Your task to perform on an android device: Go to CNN.com Image 0: 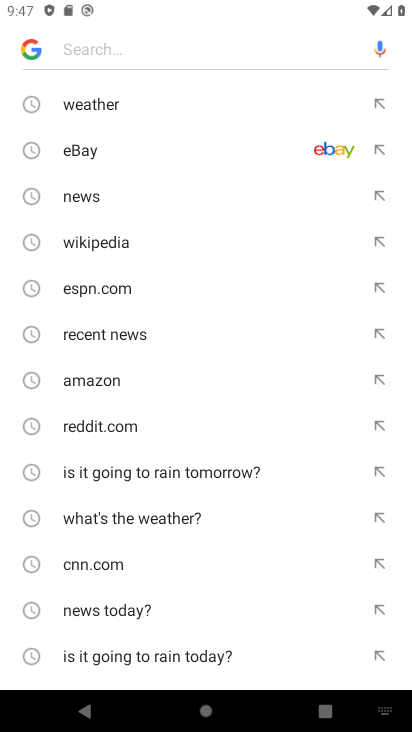
Step 0: press home button
Your task to perform on an android device: Go to CNN.com Image 1: 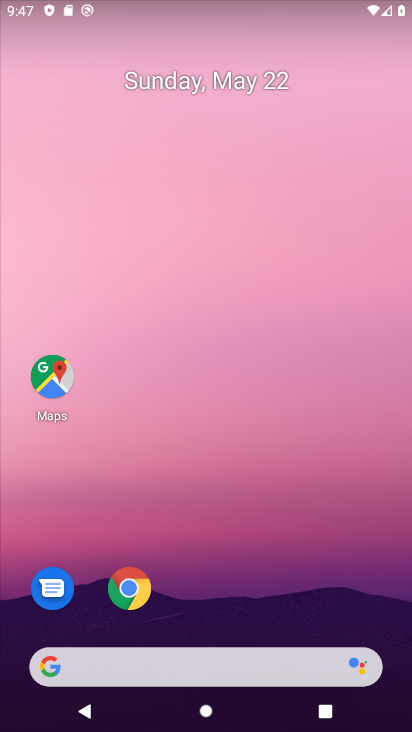
Step 1: drag from (214, 623) to (157, 120)
Your task to perform on an android device: Go to CNN.com Image 2: 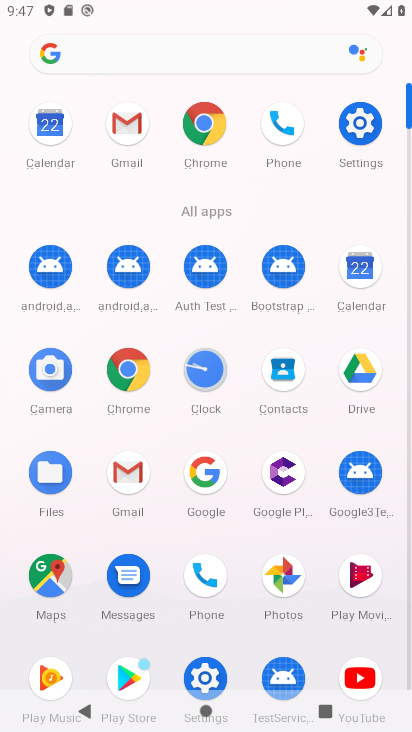
Step 2: click (203, 126)
Your task to perform on an android device: Go to CNN.com Image 3: 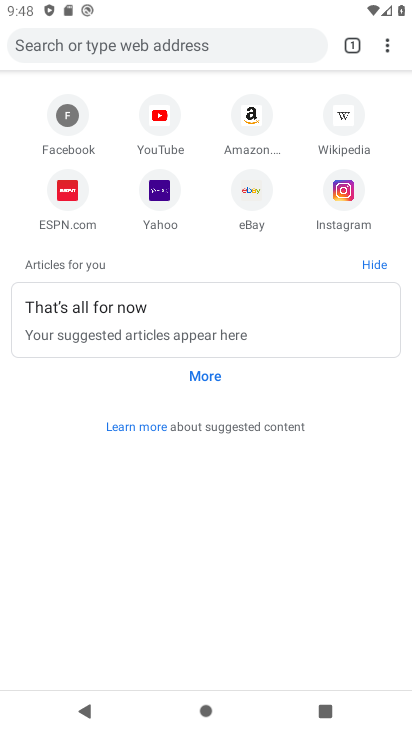
Step 3: click (190, 56)
Your task to perform on an android device: Go to CNN.com Image 4: 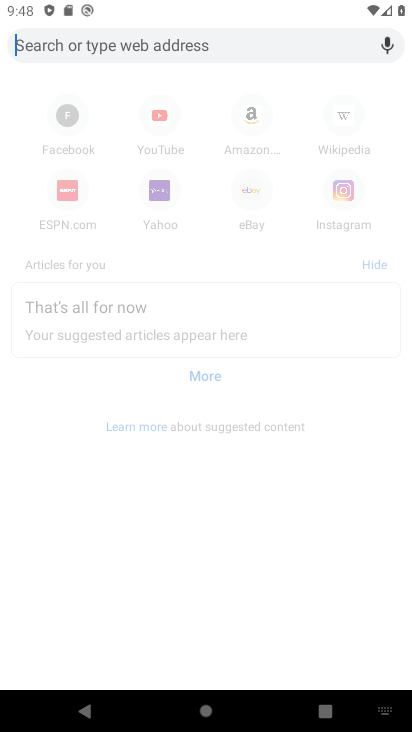
Step 4: type "cnn.com"
Your task to perform on an android device: Go to CNN.com Image 5: 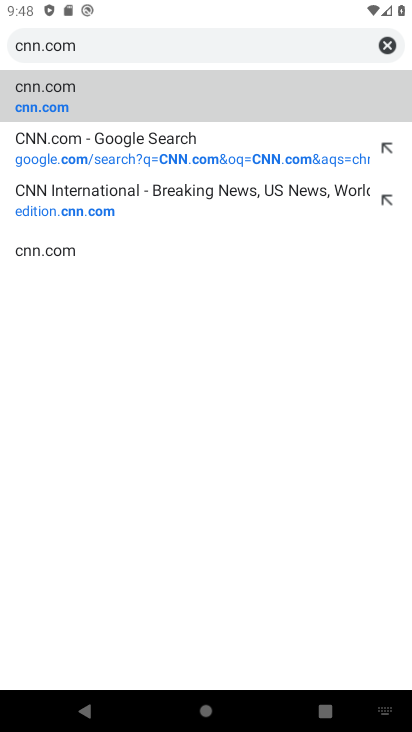
Step 5: click (42, 113)
Your task to perform on an android device: Go to CNN.com Image 6: 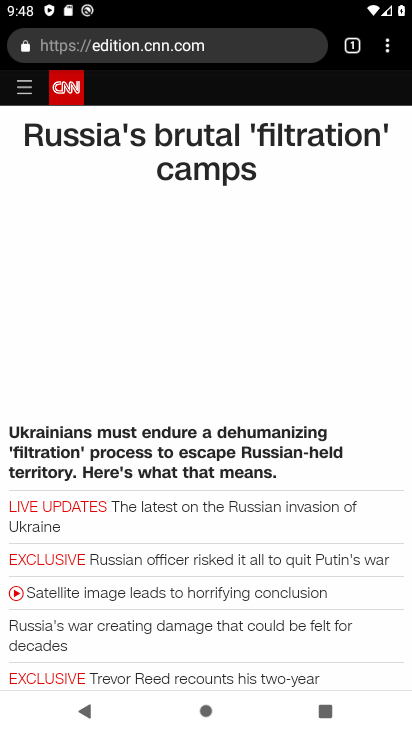
Step 6: task complete